Your task to perform on an android device: see creations saved in the google photos Image 0: 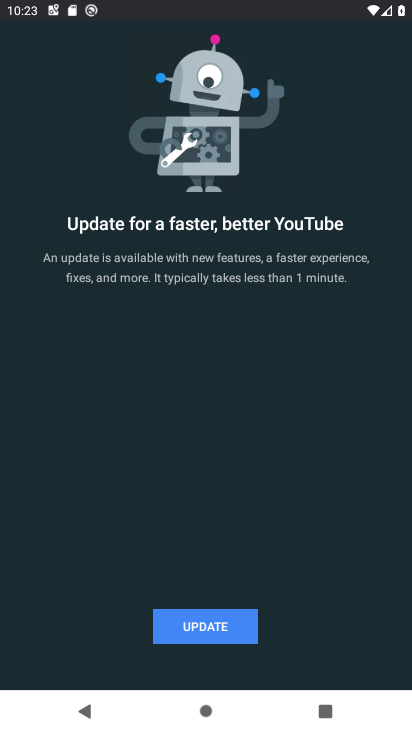
Step 0: press home button
Your task to perform on an android device: see creations saved in the google photos Image 1: 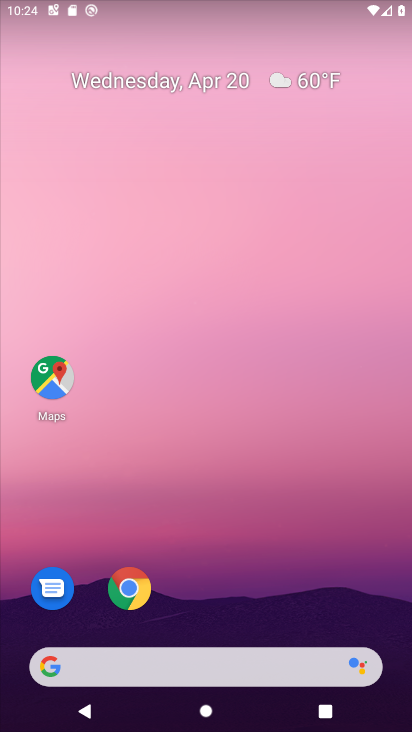
Step 1: drag from (269, 507) to (210, 13)
Your task to perform on an android device: see creations saved in the google photos Image 2: 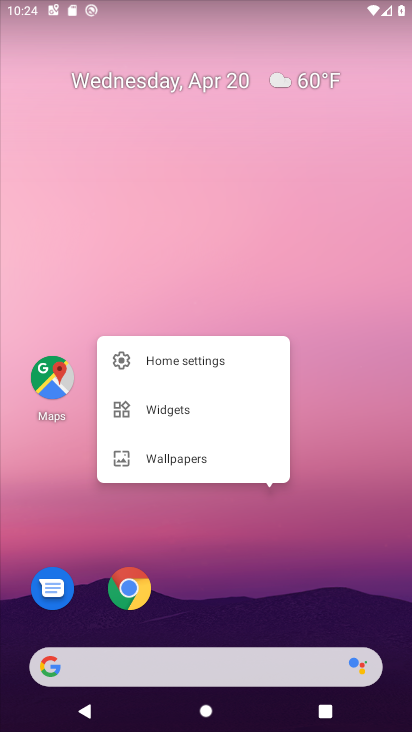
Step 2: click (256, 594)
Your task to perform on an android device: see creations saved in the google photos Image 3: 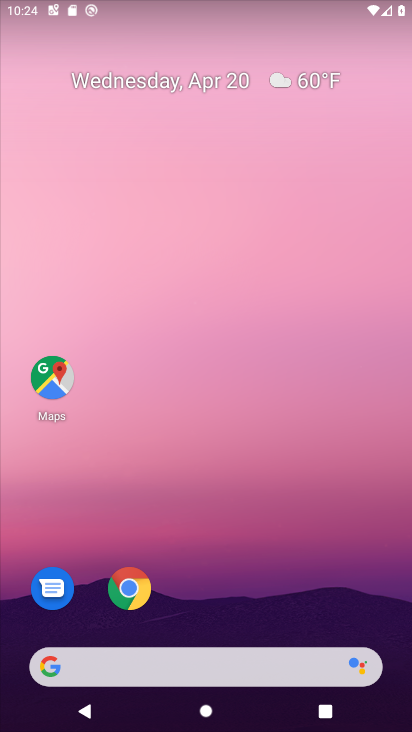
Step 3: drag from (312, 624) to (244, 59)
Your task to perform on an android device: see creations saved in the google photos Image 4: 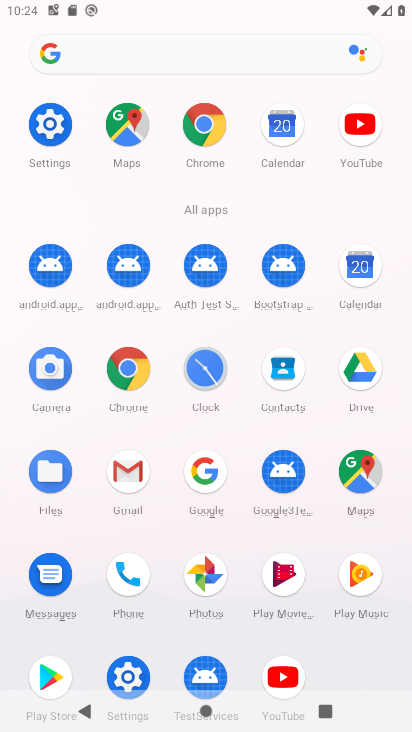
Step 4: click (202, 568)
Your task to perform on an android device: see creations saved in the google photos Image 5: 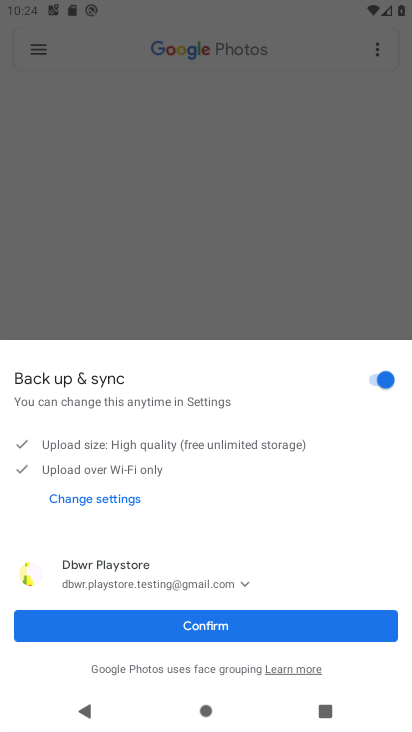
Step 5: click (104, 639)
Your task to perform on an android device: see creations saved in the google photos Image 6: 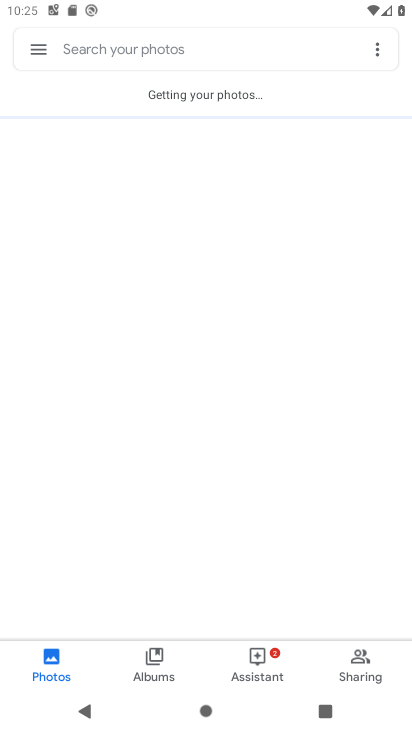
Step 6: click (124, 49)
Your task to perform on an android device: see creations saved in the google photos Image 7: 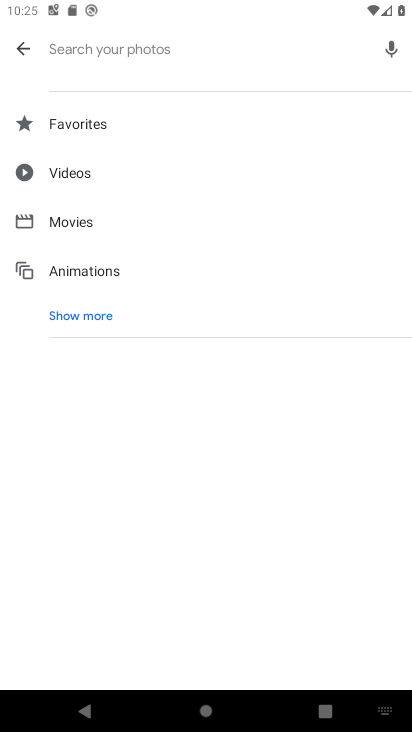
Step 7: click (84, 50)
Your task to perform on an android device: see creations saved in the google photos Image 8: 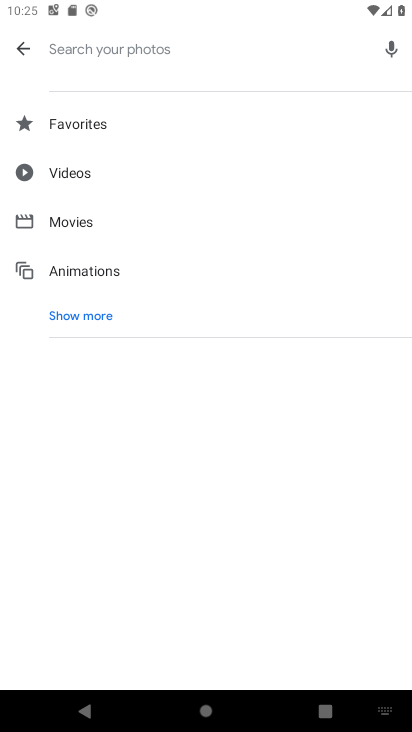
Step 8: click (79, 317)
Your task to perform on an android device: see creations saved in the google photos Image 9: 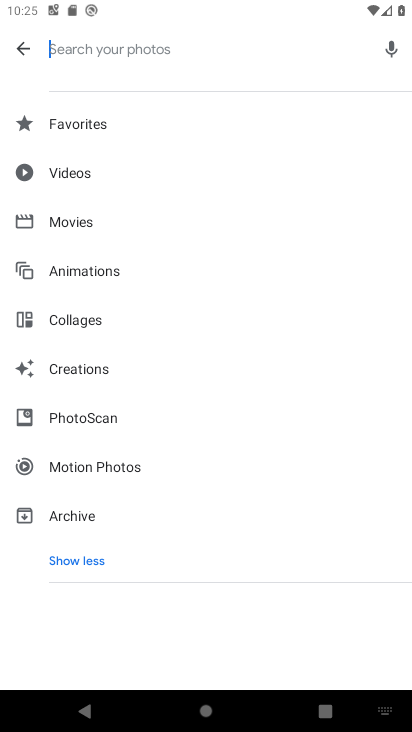
Step 9: click (60, 368)
Your task to perform on an android device: see creations saved in the google photos Image 10: 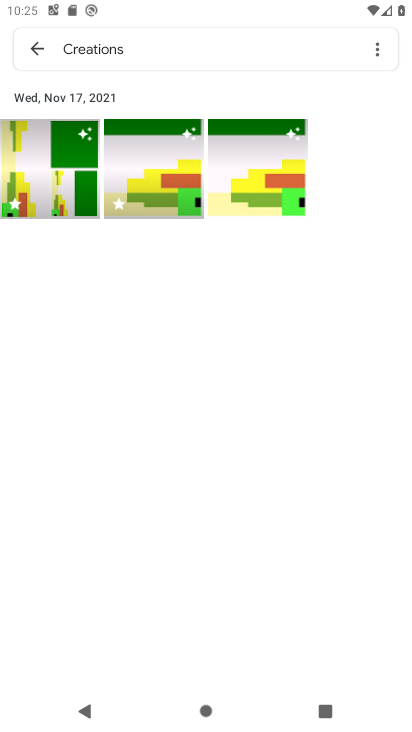
Step 10: task complete